Your task to perform on an android device: Turn on the flashlight Image 0: 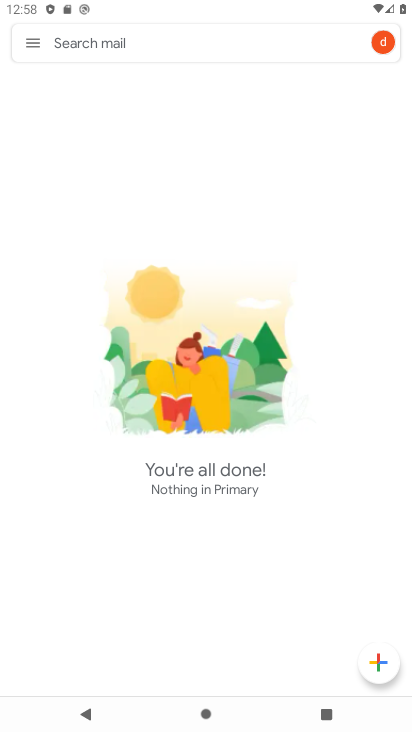
Step 0: drag from (270, 44) to (245, 404)
Your task to perform on an android device: Turn on the flashlight Image 1: 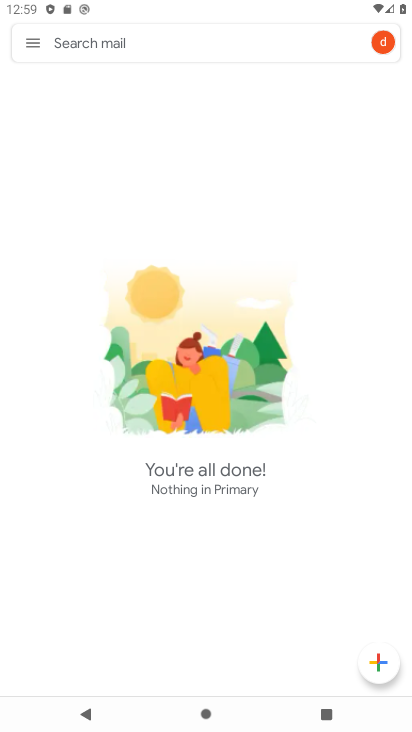
Step 1: task complete